Your task to perform on an android device: turn on javascript in the chrome app Image 0: 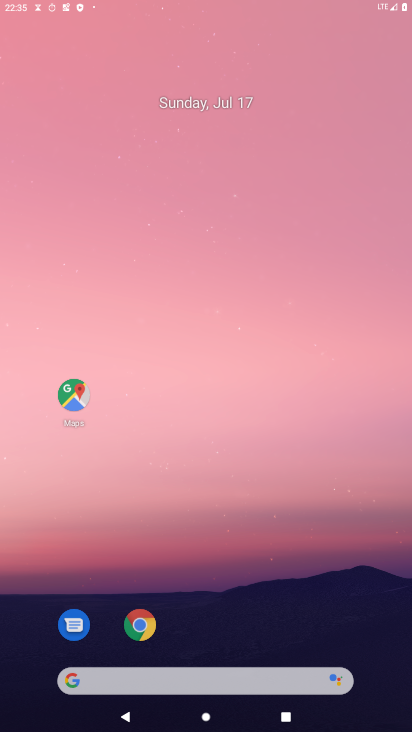
Step 0: drag from (251, 727) to (244, 130)
Your task to perform on an android device: turn on javascript in the chrome app Image 1: 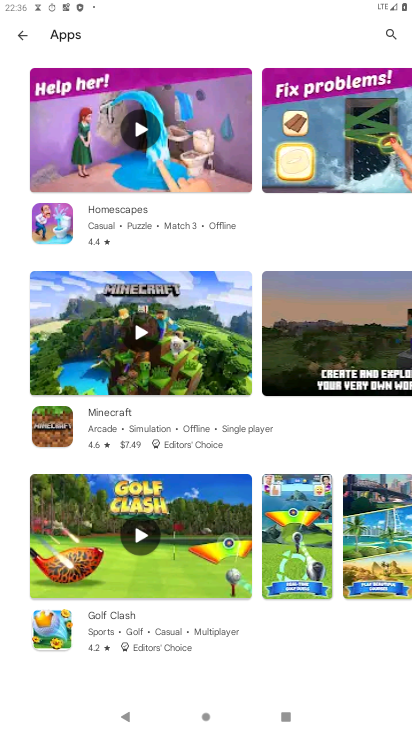
Step 1: press home button
Your task to perform on an android device: turn on javascript in the chrome app Image 2: 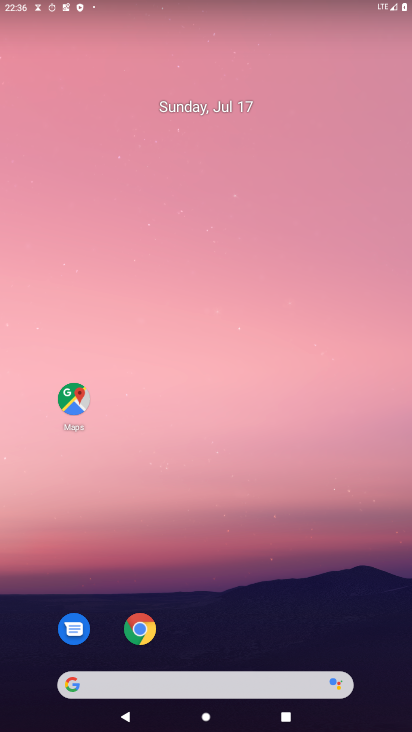
Step 2: drag from (235, 714) to (229, 94)
Your task to perform on an android device: turn on javascript in the chrome app Image 3: 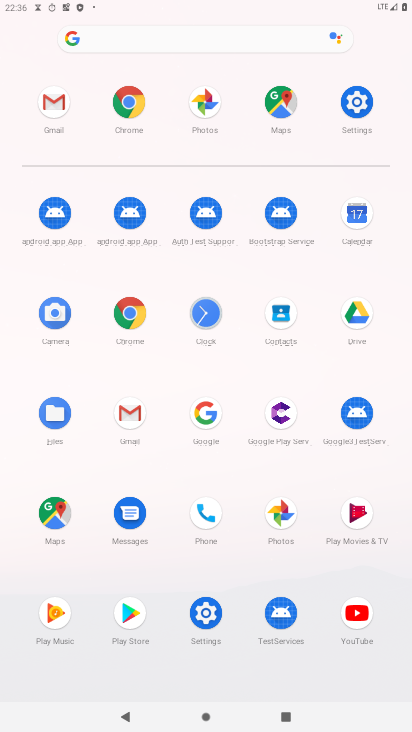
Step 3: click (131, 309)
Your task to perform on an android device: turn on javascript in the chrome app Image 4: 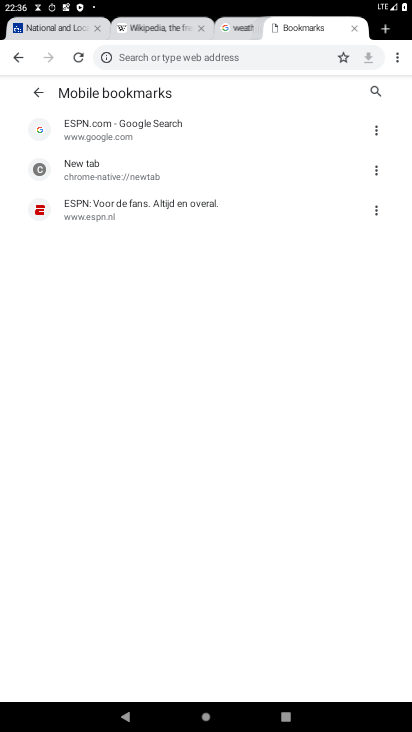
Step 4: click (398, 63)
Your task to perform on an android device: turn on javascript in the chrome app Image 5: 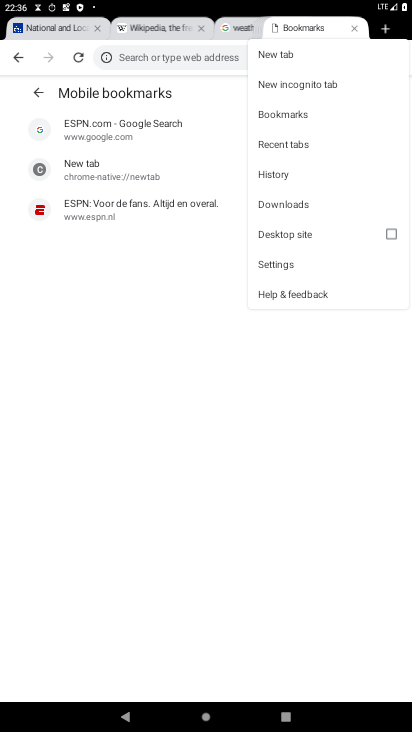
Step 5: click (274, 266)
Your task to perform on an android device: turn on javascript in the chrome app Image 6: 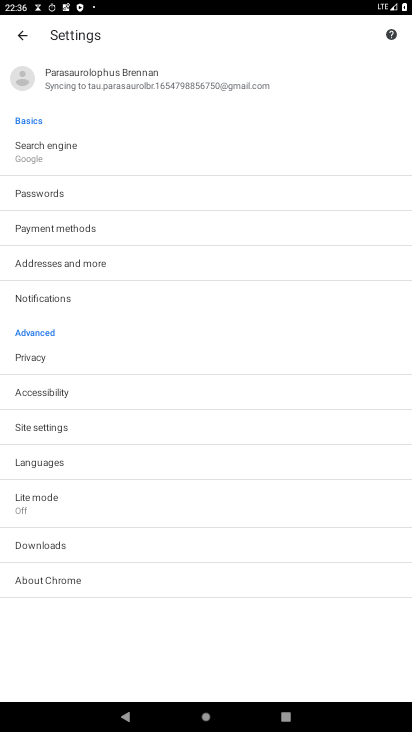
Step 6: click (53, 431)
Your task to perform on an android device: turn on javascript in the chrome app Image 7: 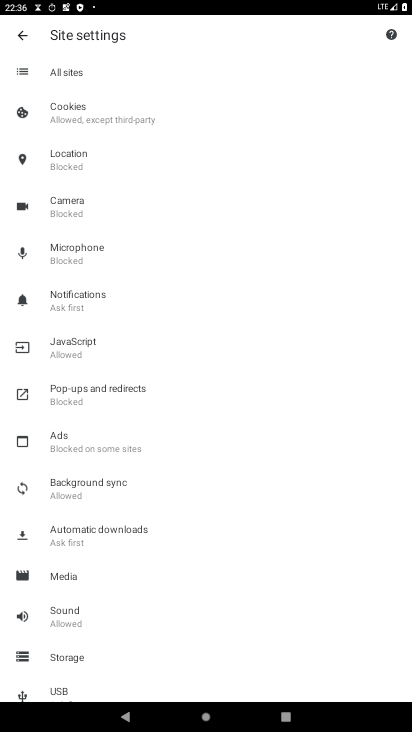
Step 7: click (67, 347)
Your task to perform on an android device: turn on javascript in the chrome app Image 8: 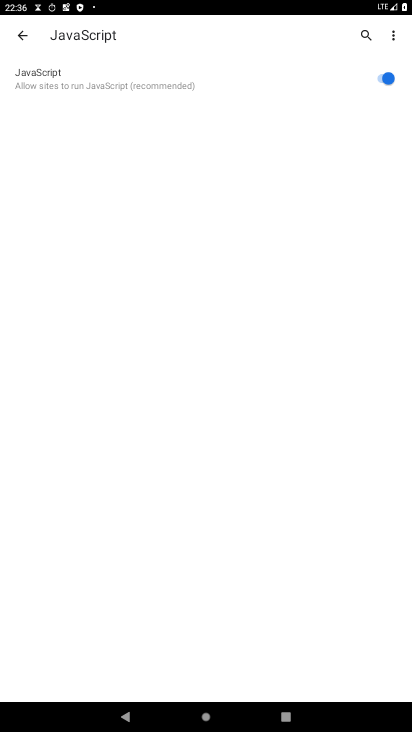
Step 8: task complete